Your task to perform on an android device: change alarm snooze length Image 0: 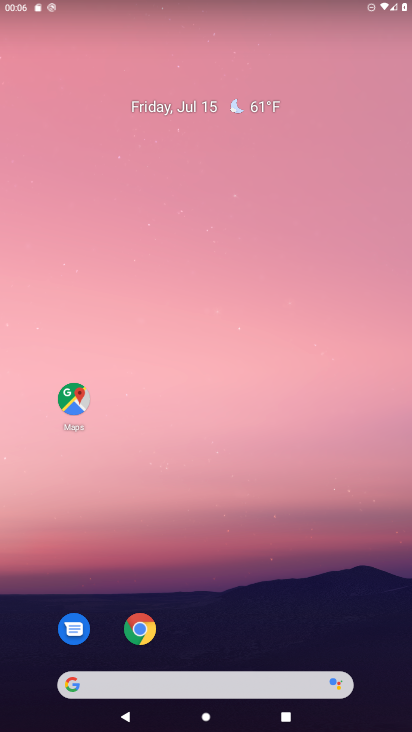
Step 0: drag from (179, 619) to (247, 53)
Your task to perform on an android device: change alarm snooze length Image 1: 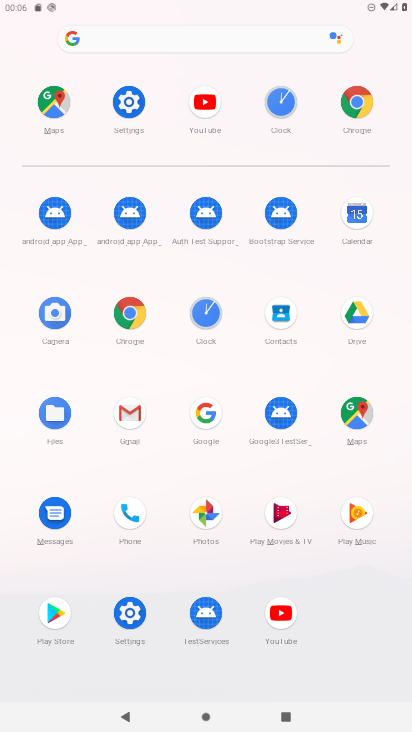
Step 1: click (290, 112)
Your task to perform on an android device: change alarm snooze length Image 2: 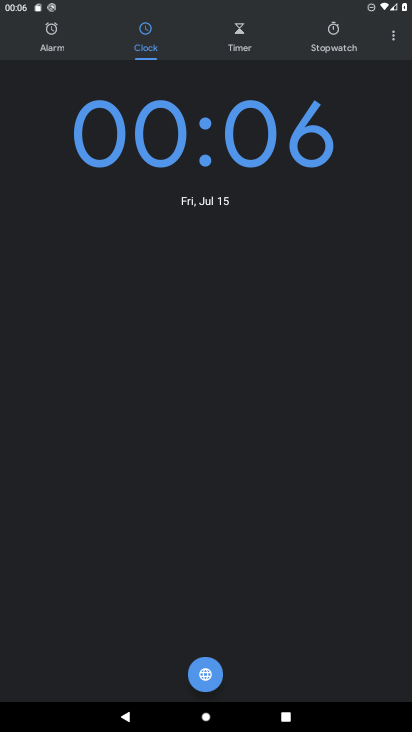
Step 2: click (388, 39)
Your task to perform on an android device: change alarm snooze length Image 3: 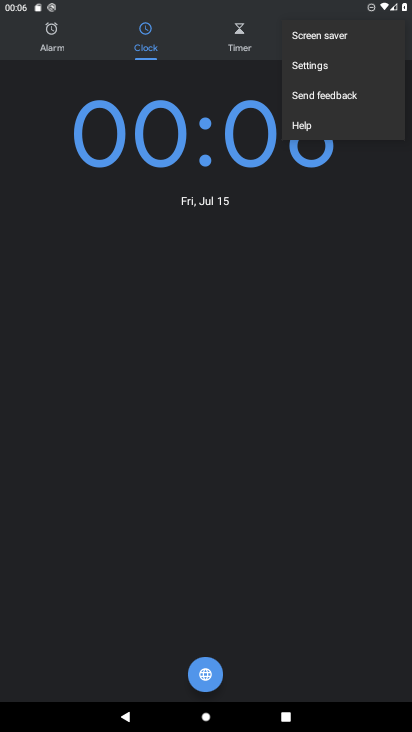
Step 3: click (348, 63)
Your task to perform on an android device: change alarm snooze length Image 4: 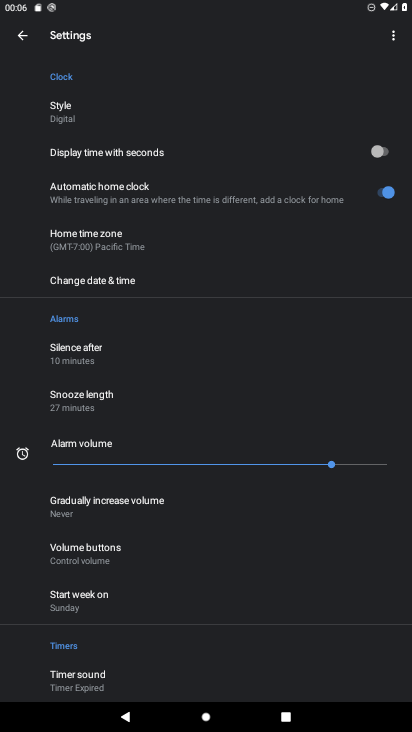
Step 4: click (117, 410)
Your task to perform on an android device: change alarm snooze length Image 5: 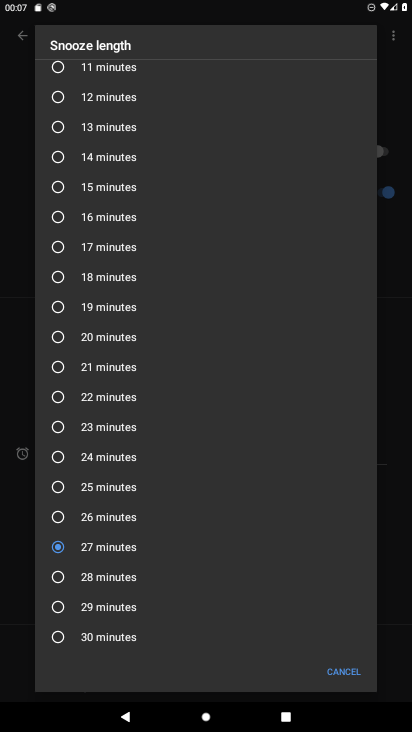
Step 5: click (110, 597)
Your task to perform on an android device: change alarm snooze length Image 6: 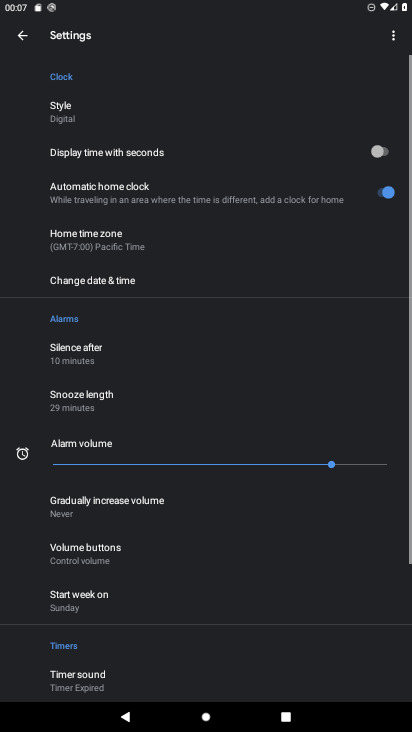
Step 6: task complete